Your task to perform on an android device: Go to eBay Image 0: 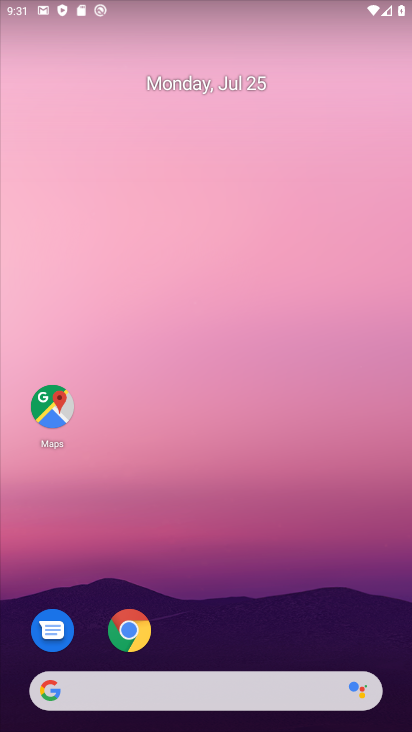
Step 0: press home button
Your task to perform on an android device: Go to eBay Image 1: 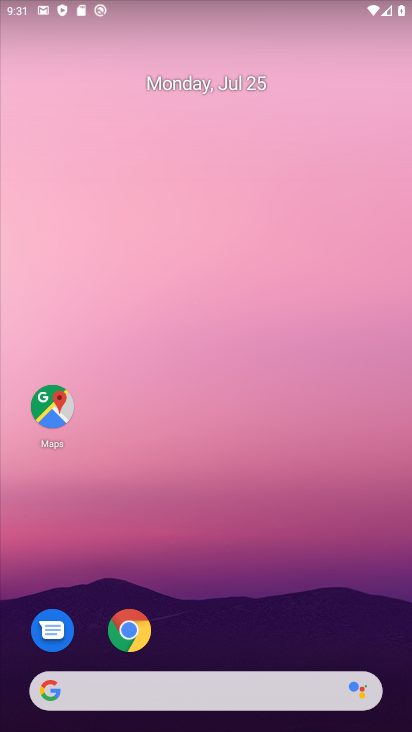
Step 1: click (48, 691)
Your task to perform on an android device: Go to eBay Image 2: 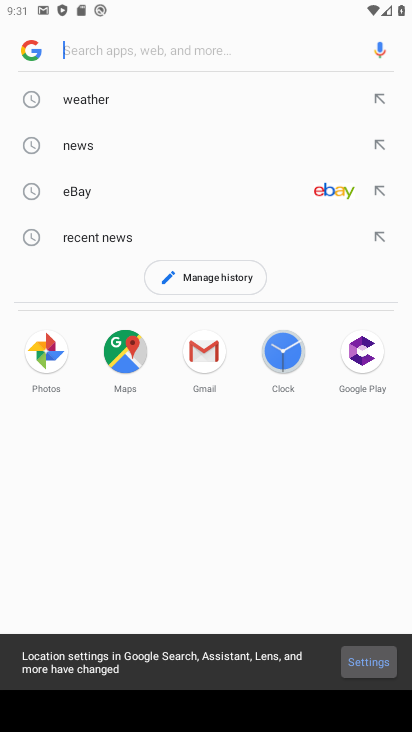
Step 2: click (318, 189)
Your task to perform on an android device: Go to eBay Image 3: 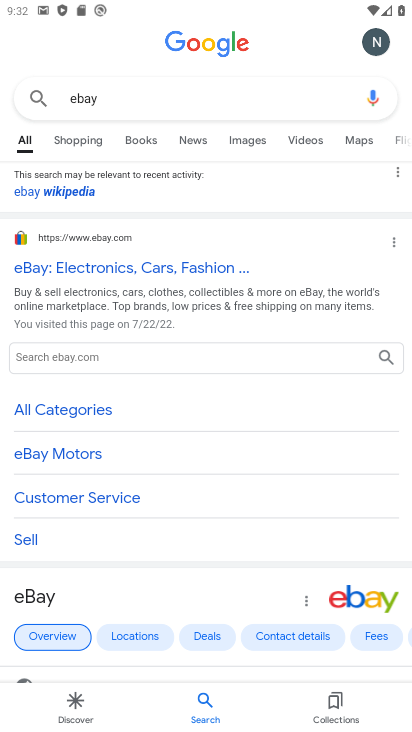
Step 3: click (40, 589)
Your task to perform on an android device: Go to eBay Image 4: 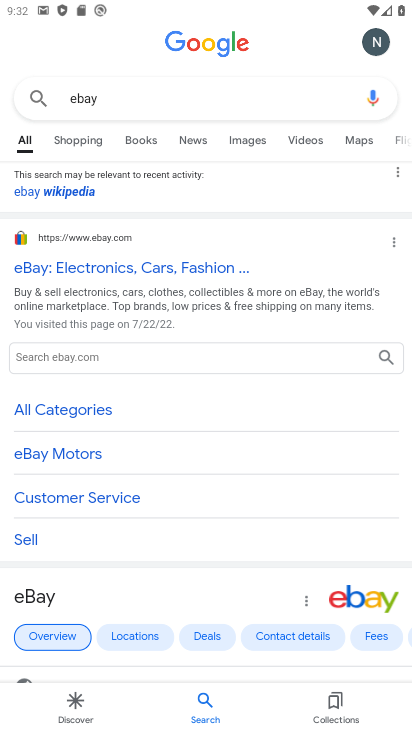
Step 4: click (35, 596)
Your task to perform on an android device: Go to eBay Image 5: 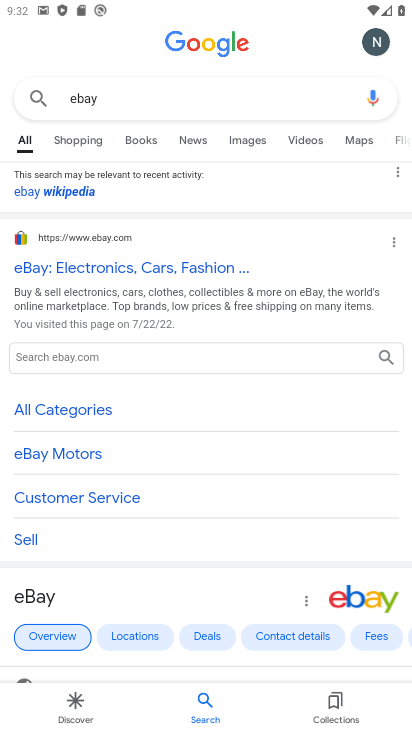
Step 5: click (158, 271)
Your task to perform on an android device: Go to eBay Image 6: 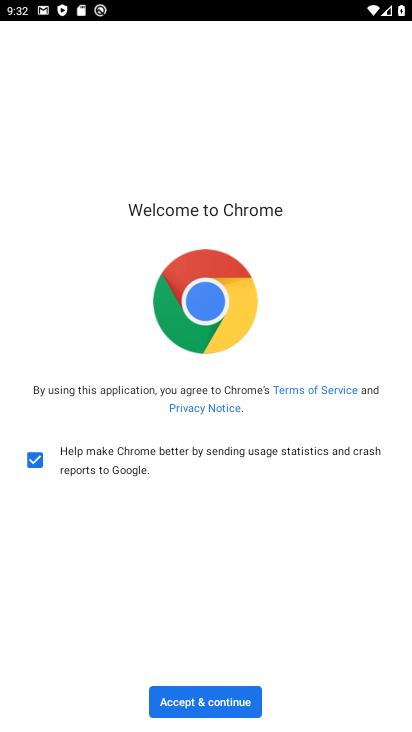
Step 6: click (238, 689)
Your task to perform on an android device: Go to eBay Image 7: 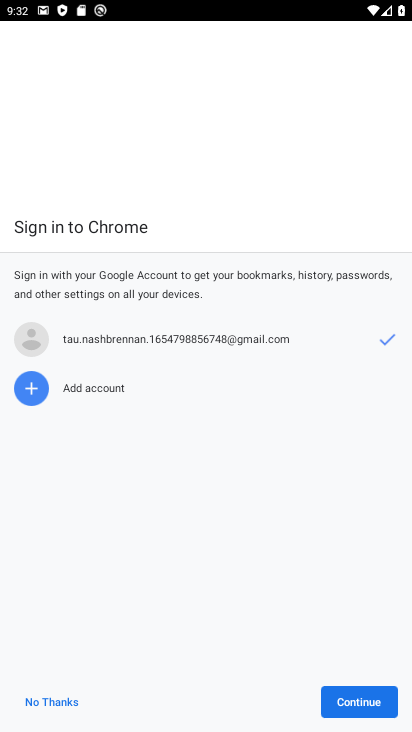
Step 7: click (366, 694)
Your task to perform on an android device: Go to eBay Image 8: 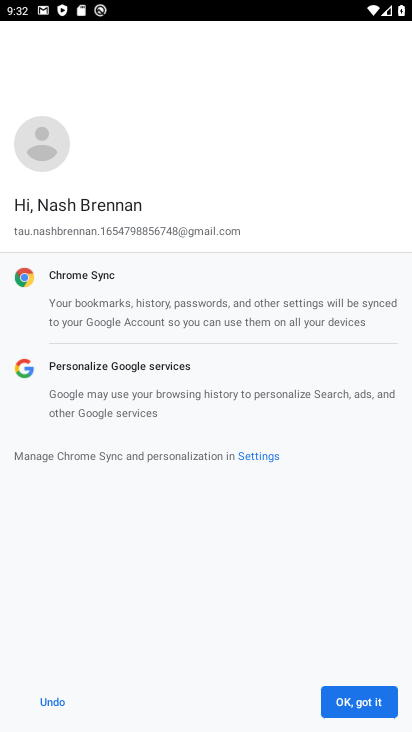
Step 8: click (366, 694)
Your task to perform on an android device: Go to eBay Image 9: 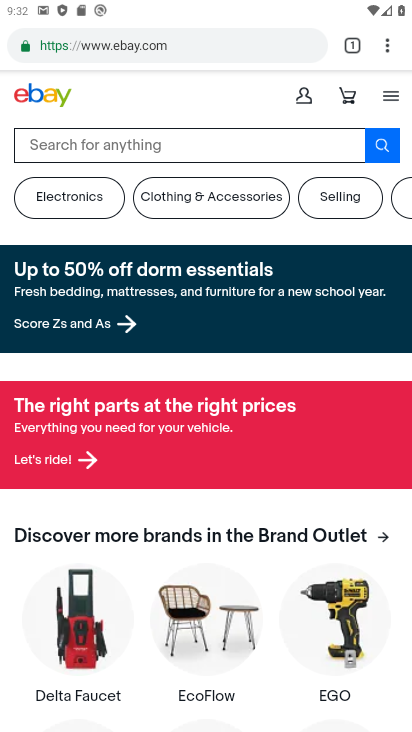
Step 9: task complete